Your task to perform on an android device: Show me productivity apps on the Play Store Image 0: 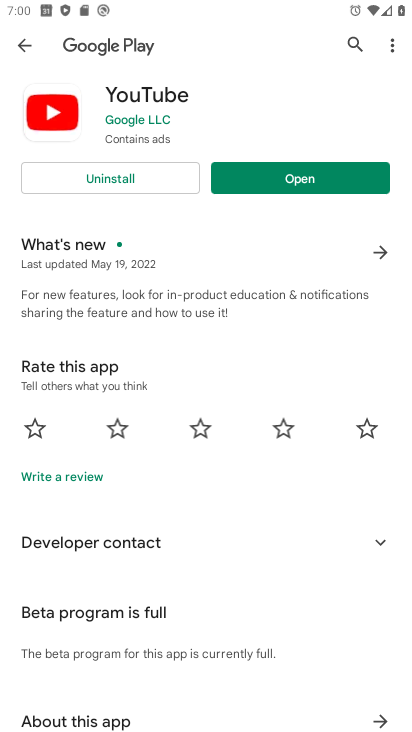
Step 0: press home button
Your task to perform on an android device: Show me productivity apps on the Play Store Image 1: 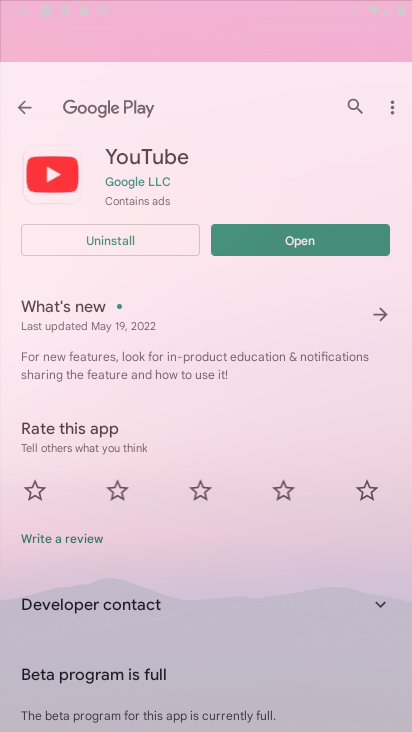
Step 1: drag from (267, 596) to (209, 27)
Your task to perform on an android device: Show me productivity apps on the Play Store Image 2: 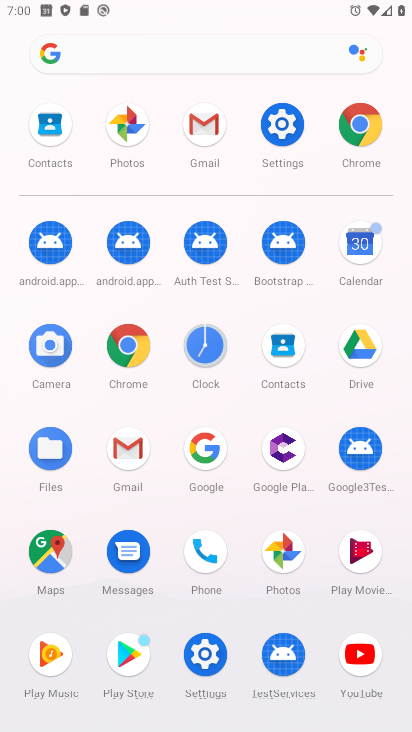
Step 2: click (111, 650)
Your task to perform on an android device: Show me productivity apps on the Play Store Image 3: 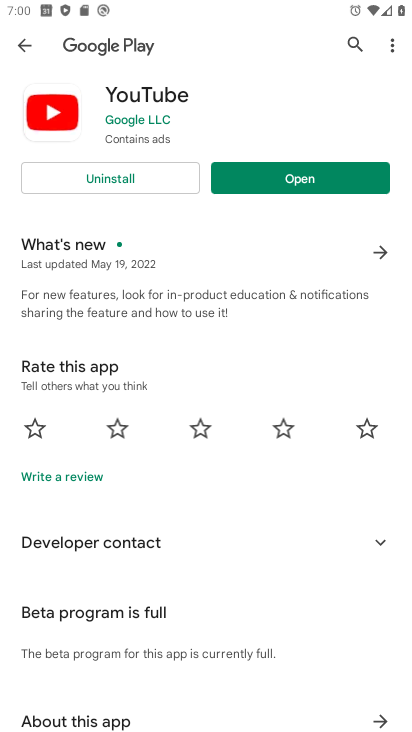
Step 3: press back button
Your task to perform on an android device: Show me productivity apps on the Play Store Image 4: 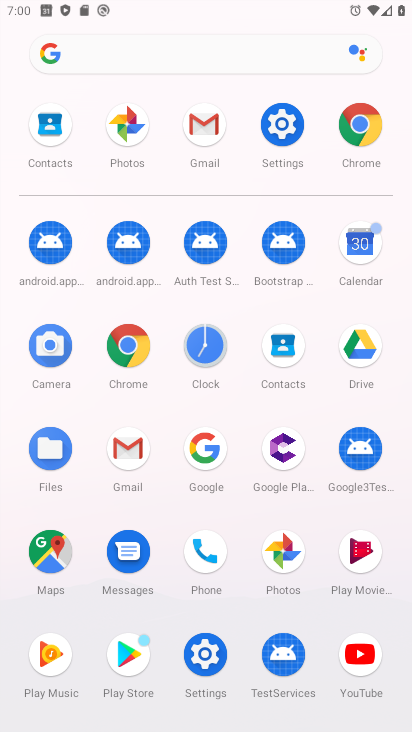
Step 4: click (133, 657)
Your task to perform on an android device: Show me productivity apps on the Play Store Image 5: 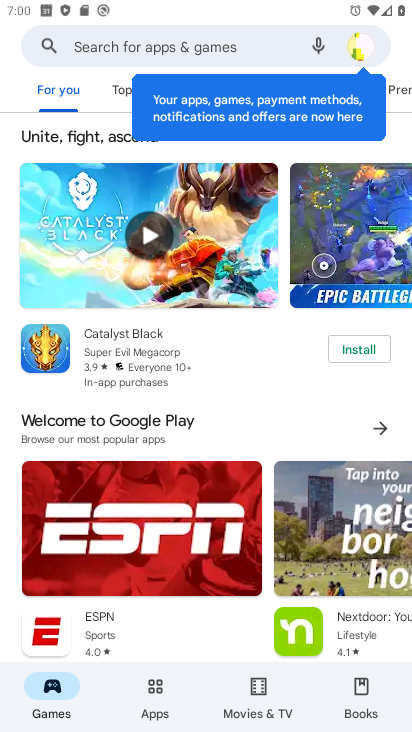
Step 5: click (152, 702)
Your task to perform on an android device: Show me productivity apps on the Play Store Image 6: 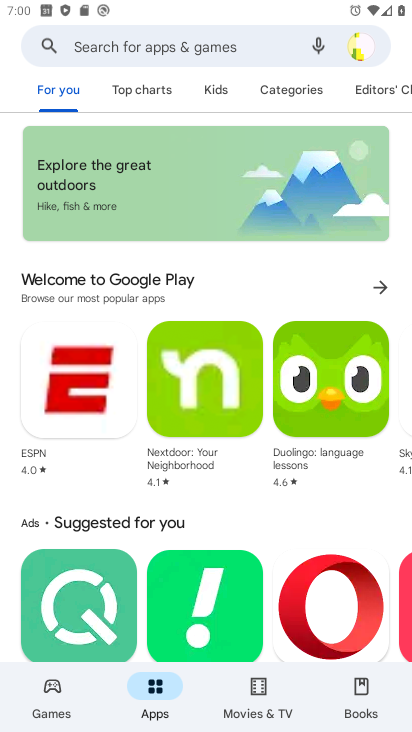
Step 6: task complete